Your task to perform on an android device: empty trash in google photos Image 0: 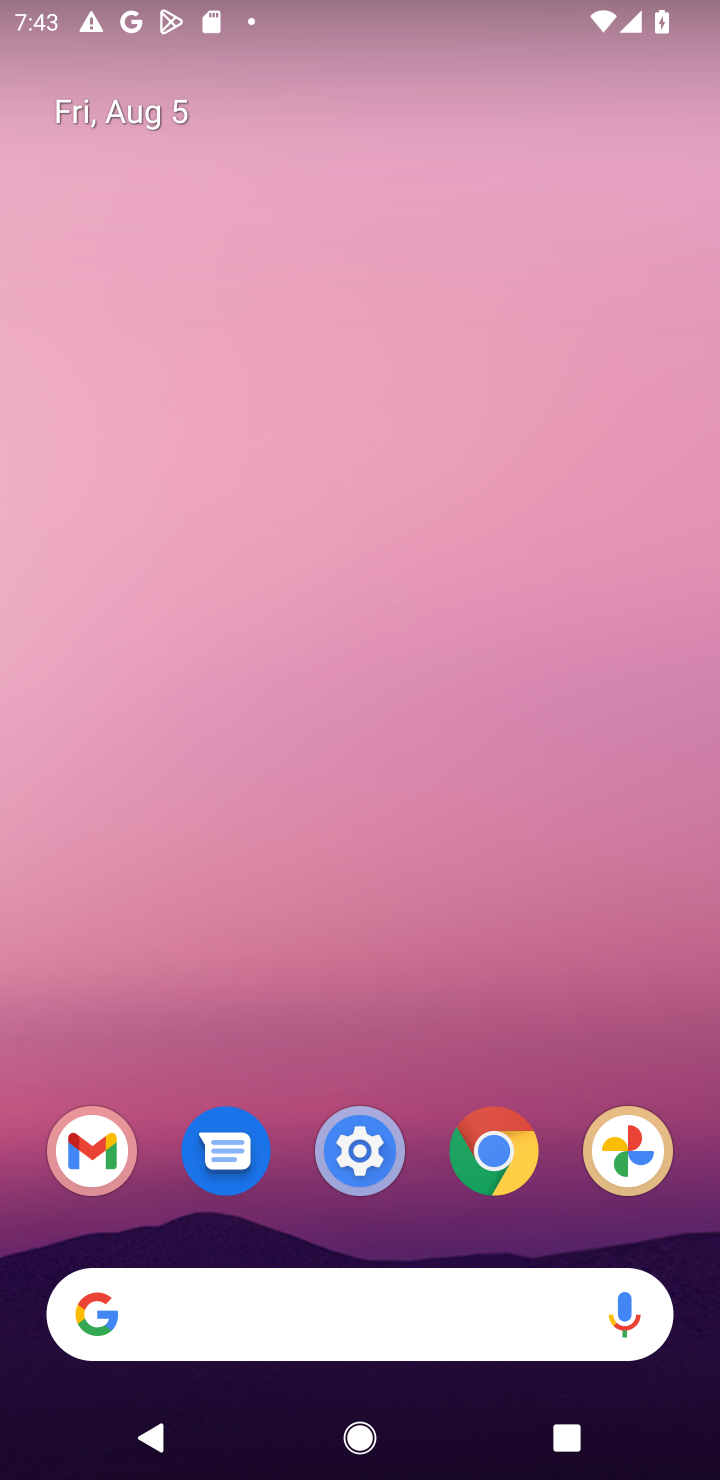
Step 0: click (128, 1158)
Your task to perform on an android device: empty trash in google photos Image 1: 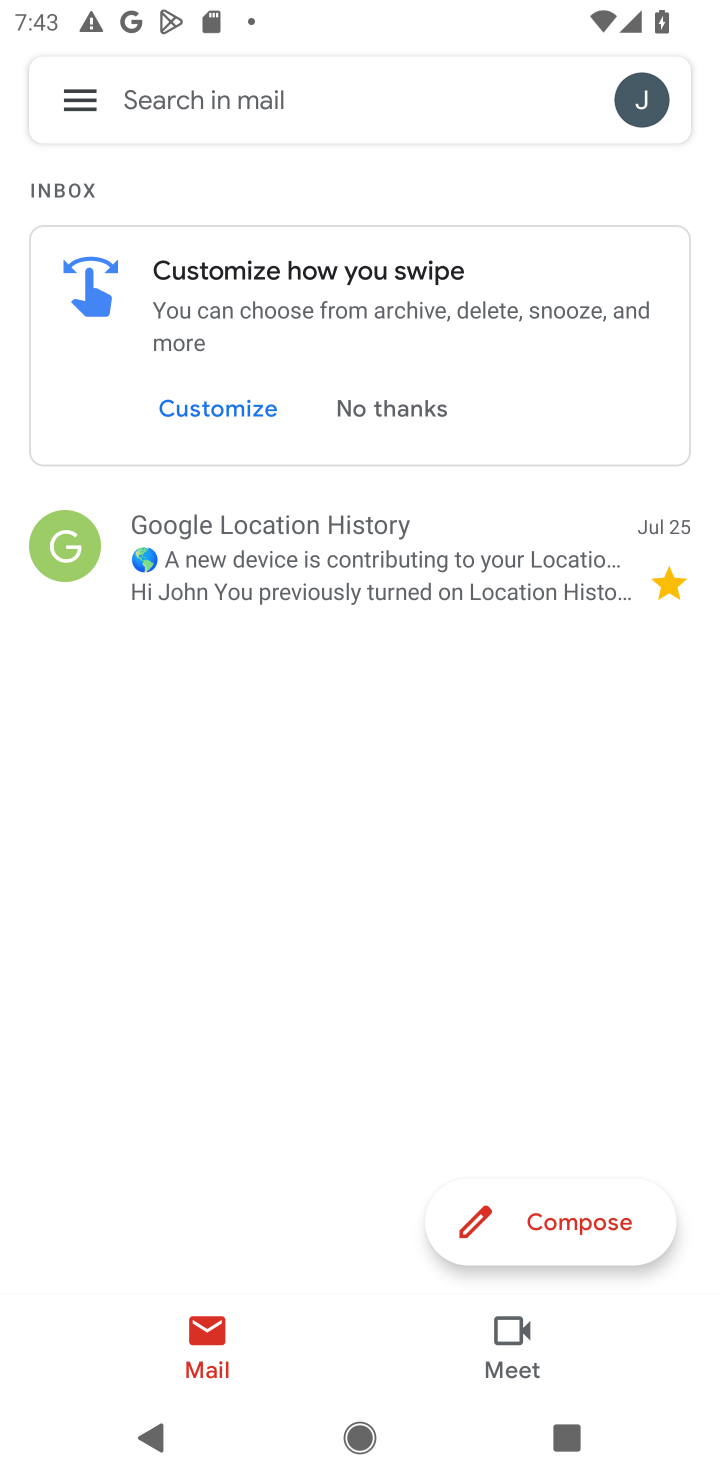
Step 1: click (72, 107)
Your task to perform on an android device: empty trash in google photos Image 2: 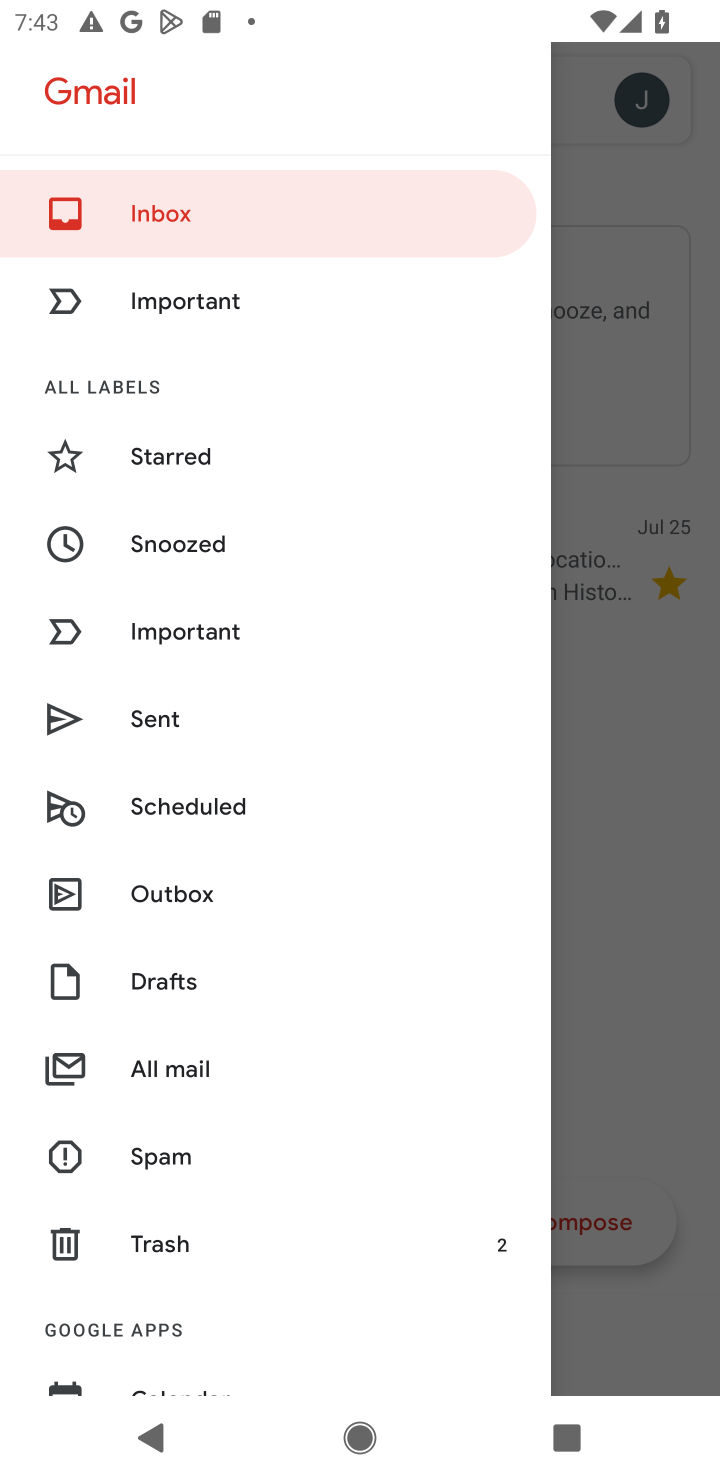
Step 2: click (162, 1243)
Your task to perform on an android device: empty trash in google photos Image 3: 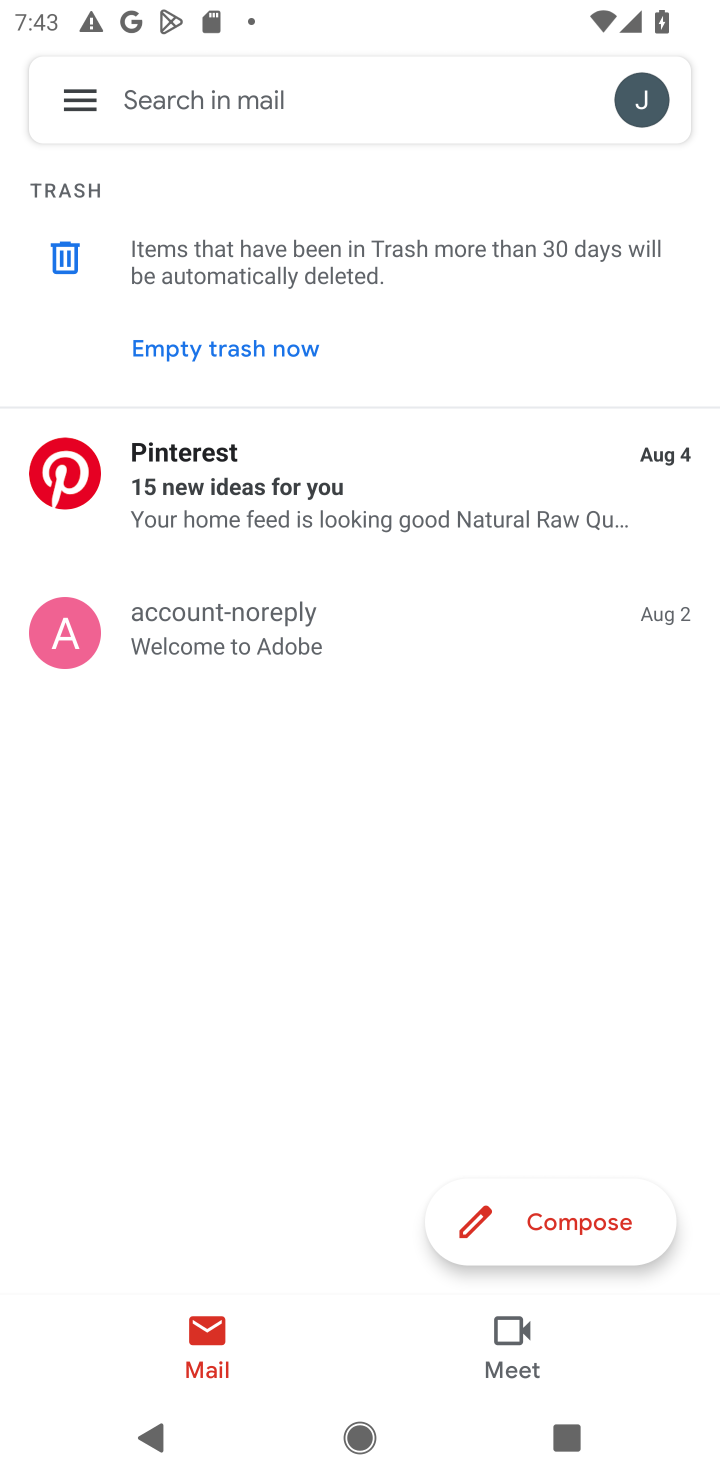
Step 3: click (178, 337)
Your task to perform on an android device: empty trash in google photos Image 4: 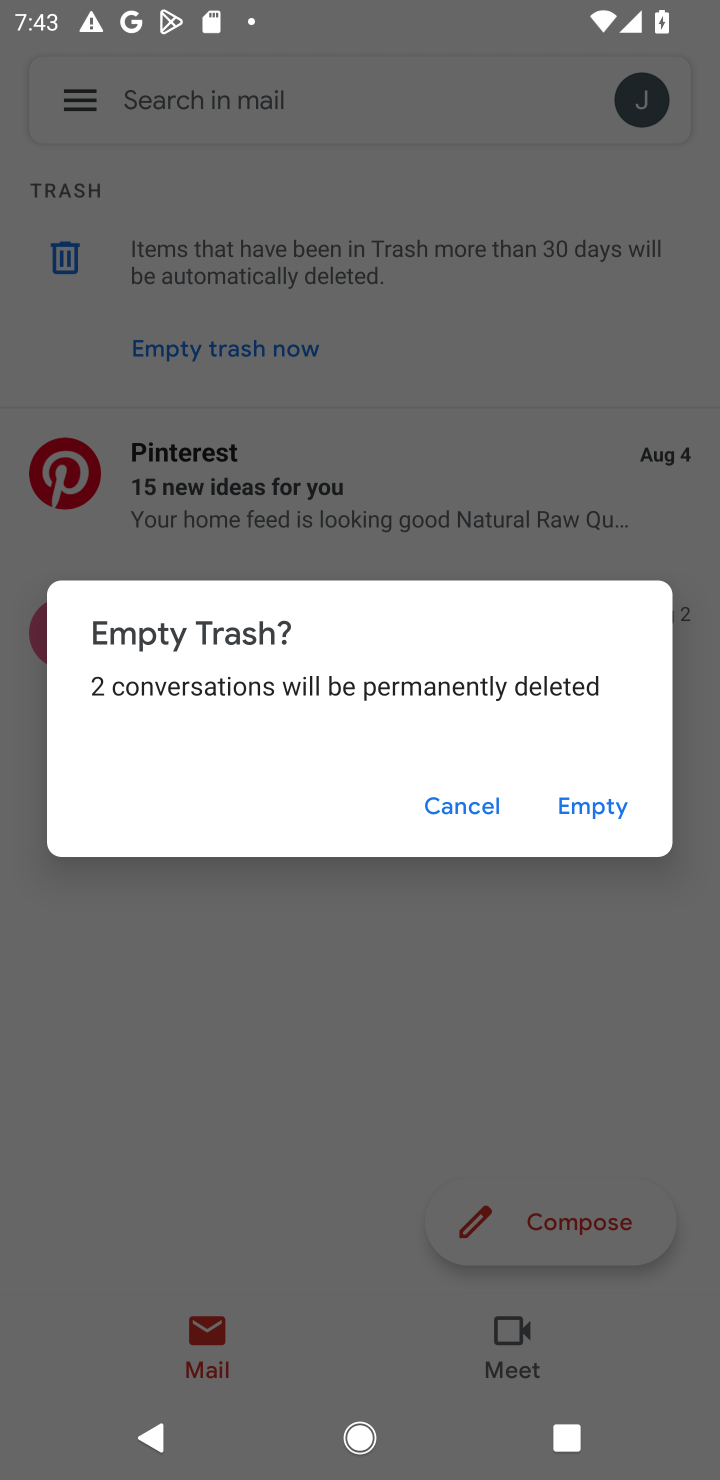
Step 4: click (254, 345)
Your task to perform on an android device: empty trash in google photos Image 5: 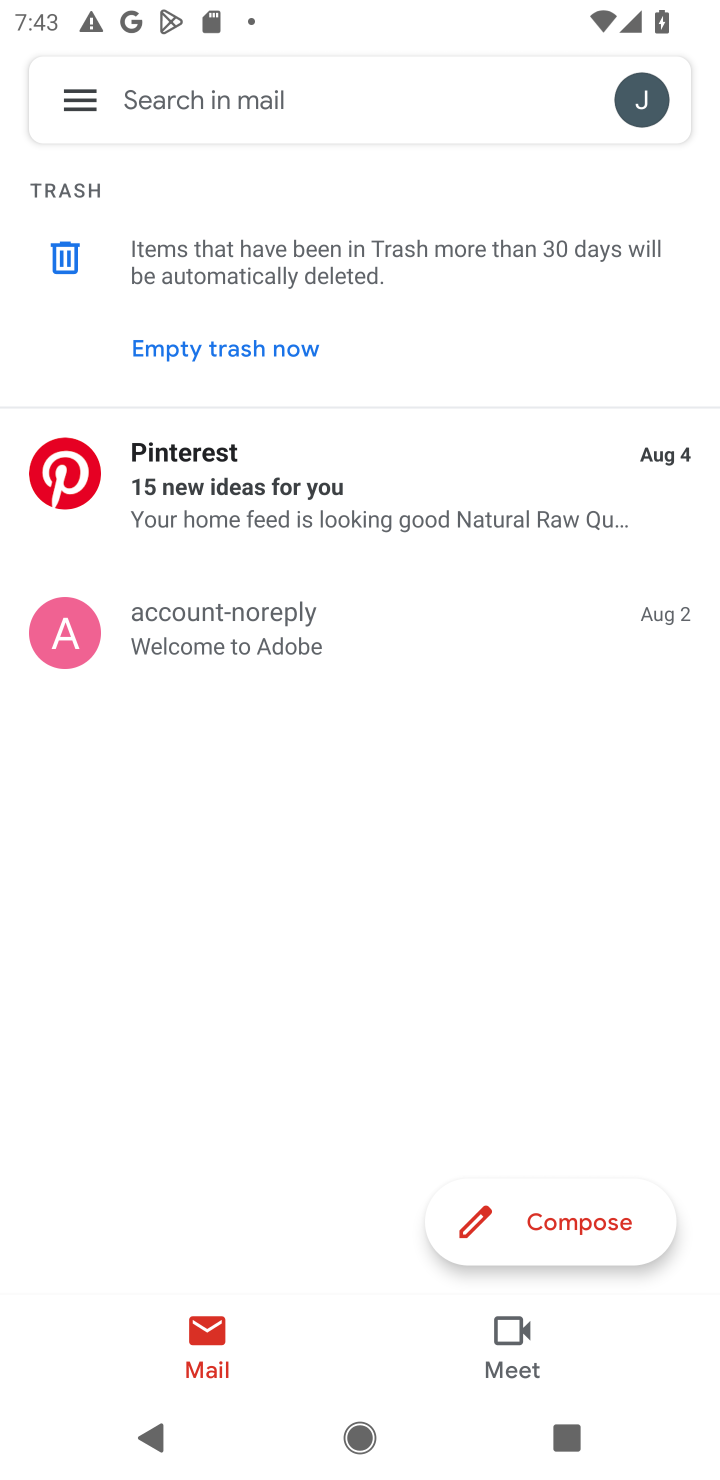
Step 5: click (585, 803)
Your task to perform on an android device: empty trash in google photos Image 6: 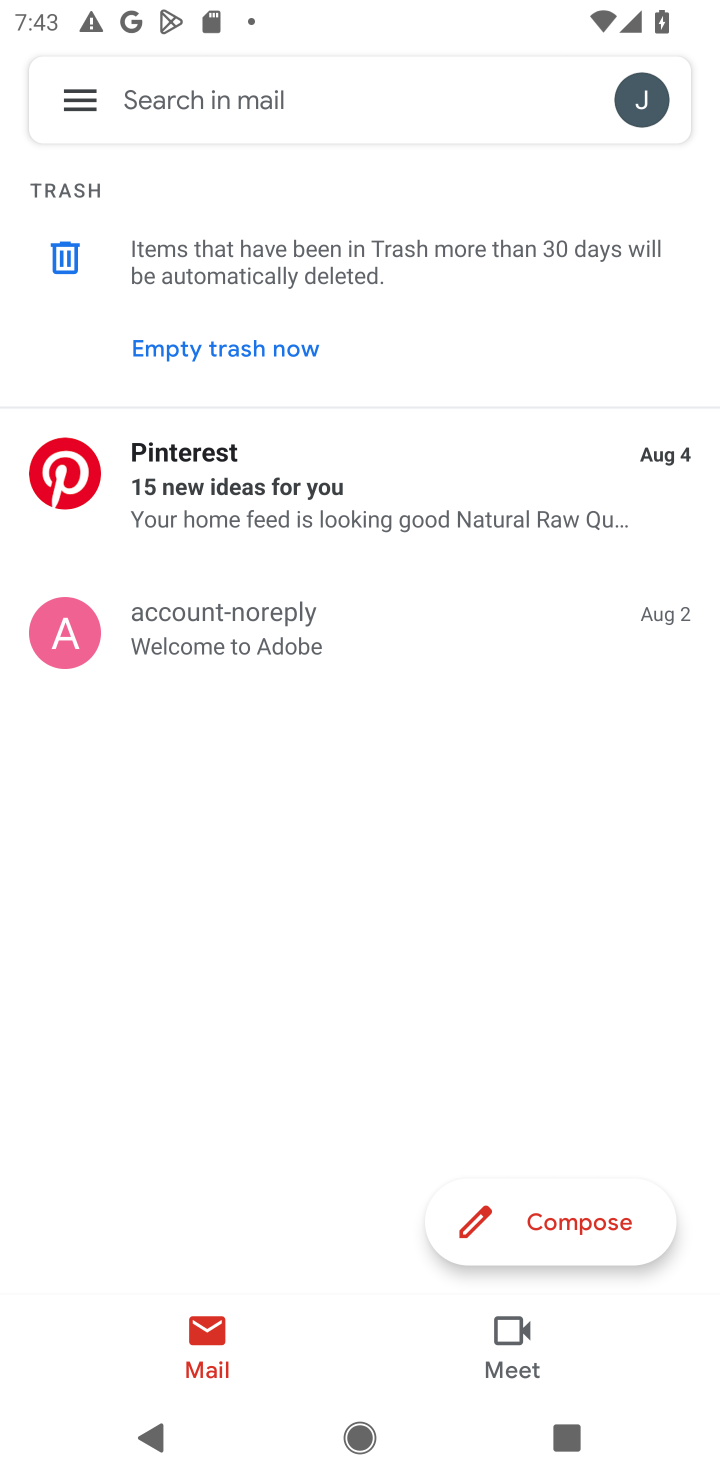
Step 6: click (205, 355)
Your task to perform on an android device: empty trash in google photos Image 7: 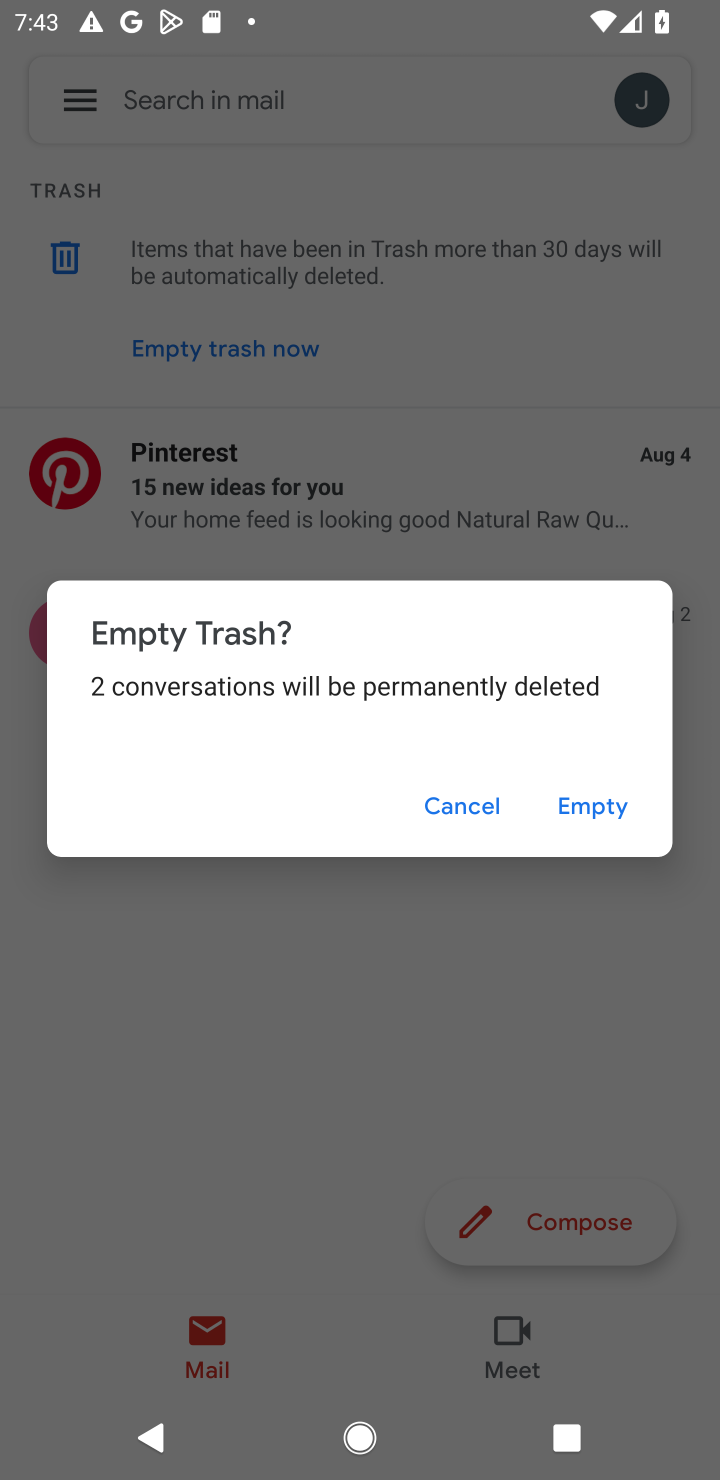
Step 7: click (606, 815)
Your task to perform on an android device: empty trash in google photos Image 8: 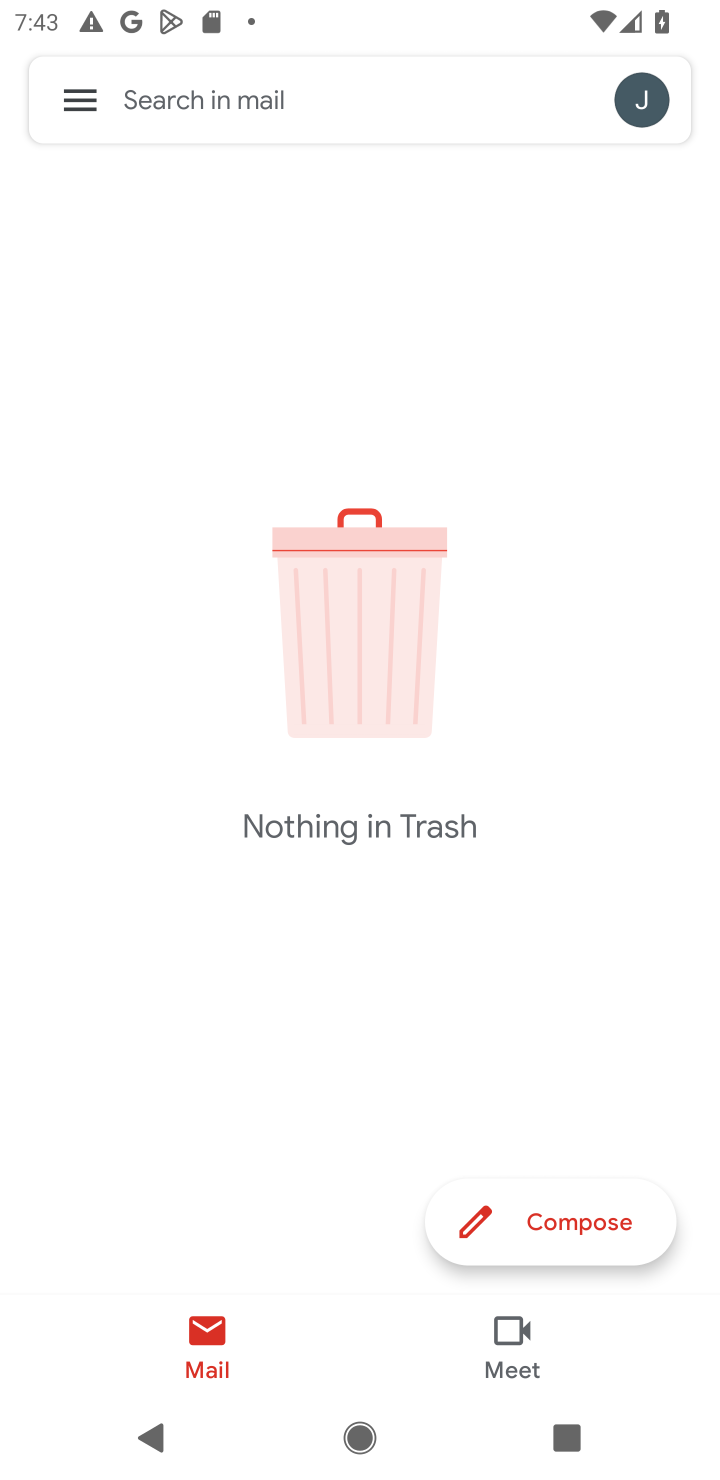
Step 8: task complete